Your task to perform on an android device: Show me recent news Image 0: 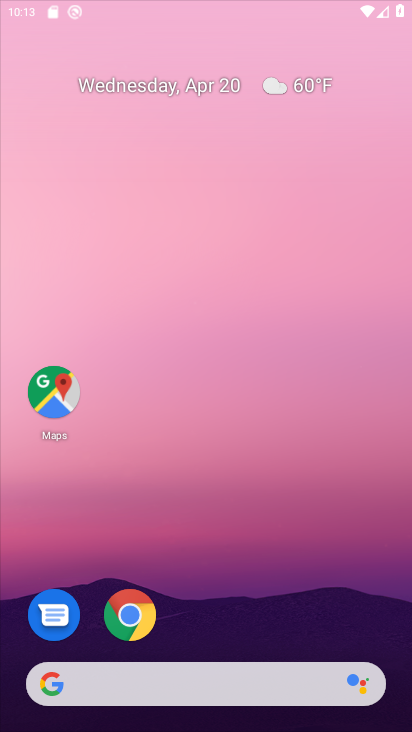
Step 0: click (371, 182)
Your task to perform on an android device: Show me recent news Image 1: 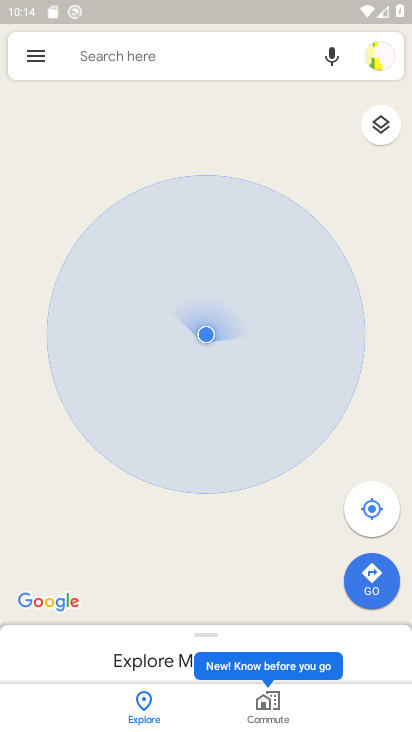
Step 1: press home button
Your task to perform on an android device: Show me recent news Image 2: 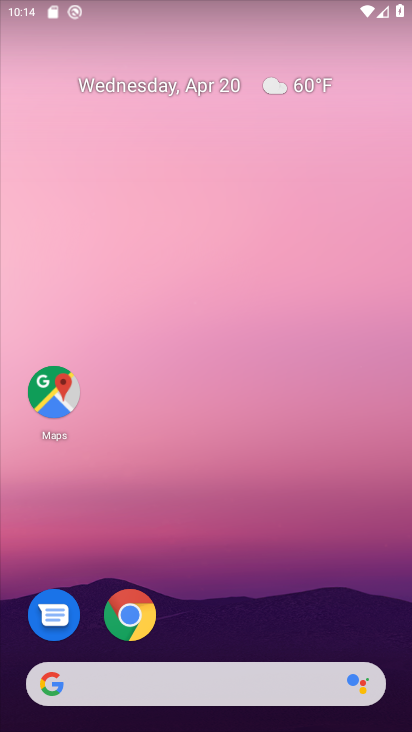
Step 2: drag from (353, 526) to (383, 63)
Your task to perform on an android device: Show me recent news Image 3: 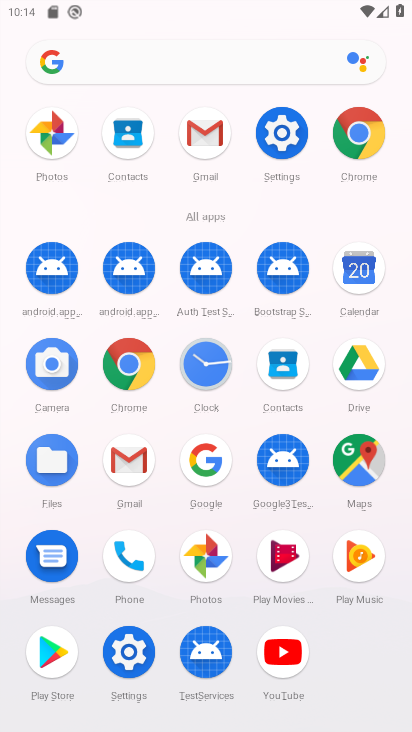
Step 3: click (122, 379)
Your task to perform on an android device: Show me recent news Image 4: 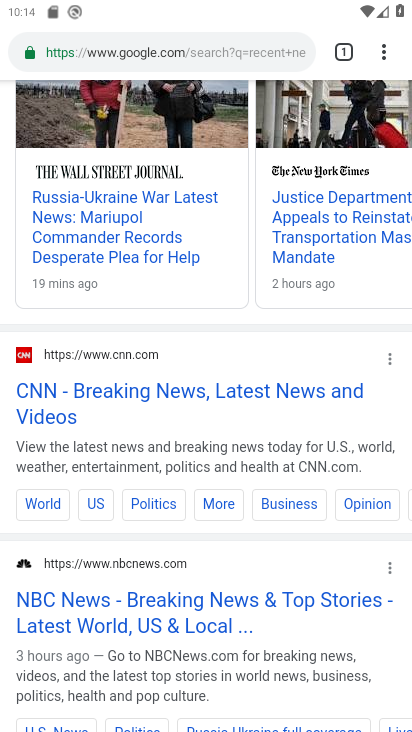
Step 4: click (217, 59)
Your task to perform on an android device: Show me recent news Image 5: 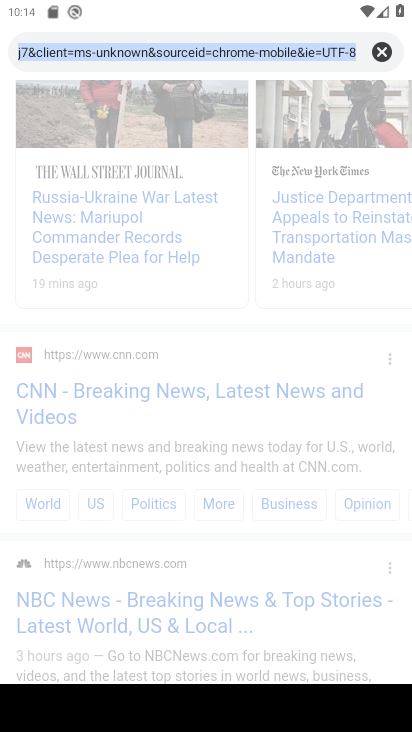
Step 5: click (381, 58)
Your task to perform on an android device: Show me recent news Image 6: 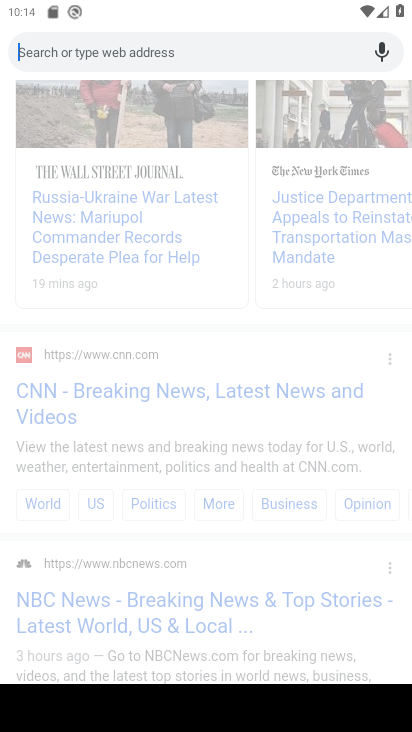
Step 6: type "recent news"
Your task to perform on an android device: Show me recent news Image 7: 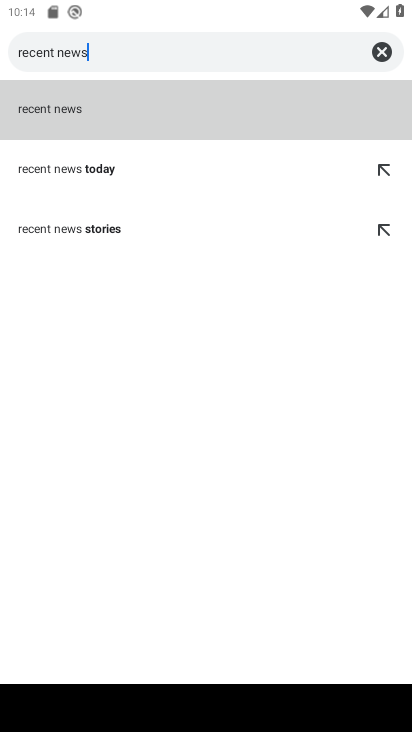
Step 7: click (77, 119)
Your task to perform on an android device: Show me recent news Image 8: 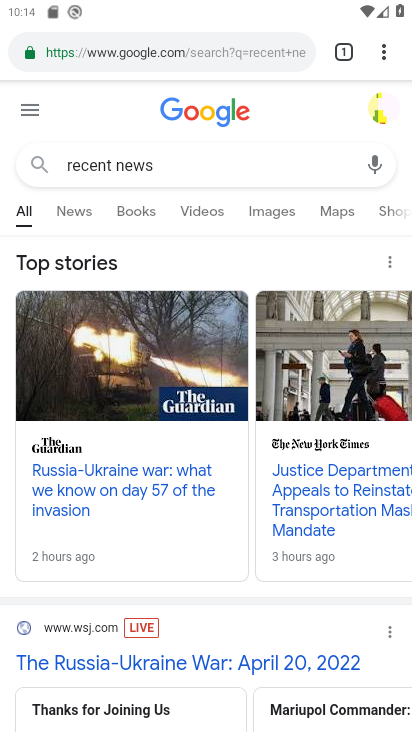
Step 8: task complete